Your task to perform on an android device: Add "usb-b" to the cart on bestbuy.com, then select checkout. Image 0: 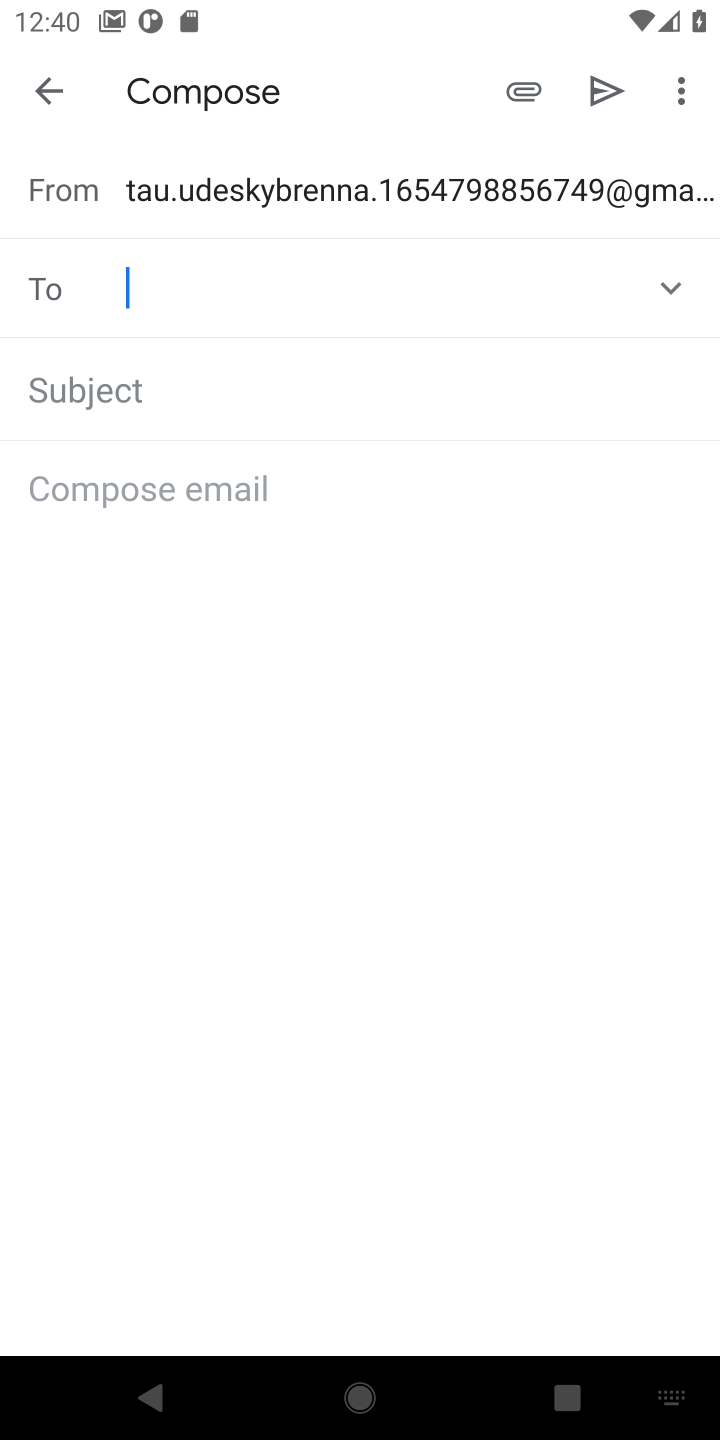
Step 0: task complete